Your task to perform on an android device: turn off data saver in the chrome app Image 0: 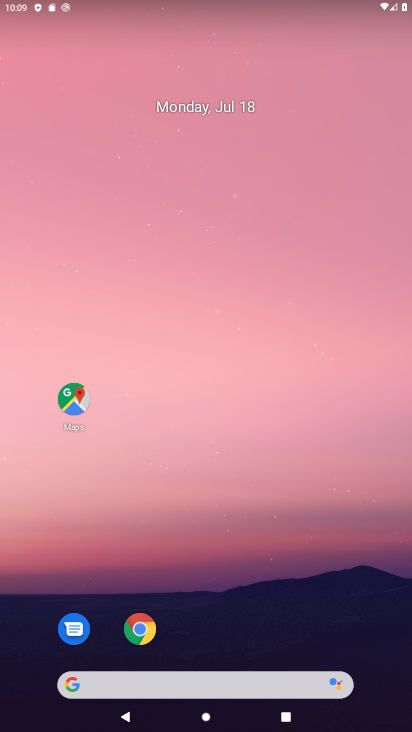
Step 0: click (136, 626)
Your task to perform on an android device: turn off data saver in the chrome app Image 1: 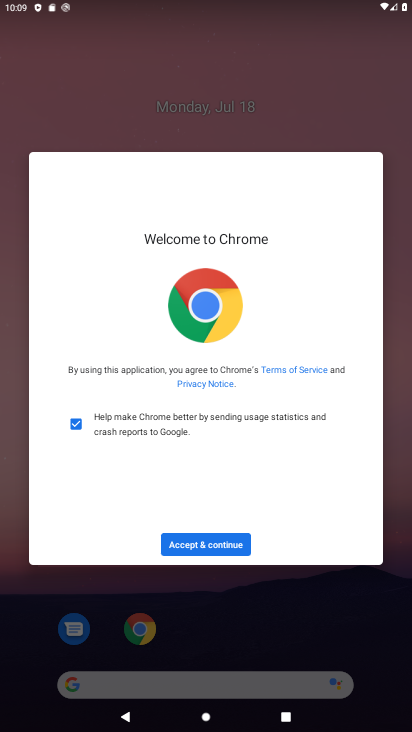
Step 1: click (214, 537)
Your task to perform on an android device: turn off data saver in the chrome app Image 2: 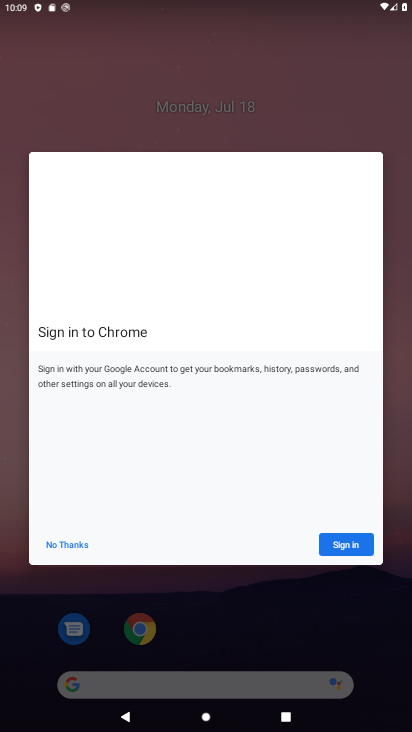
Step 2: click (54, 545)
Your task to perform on an android device: turn off data saver in the chrome app Image 3: 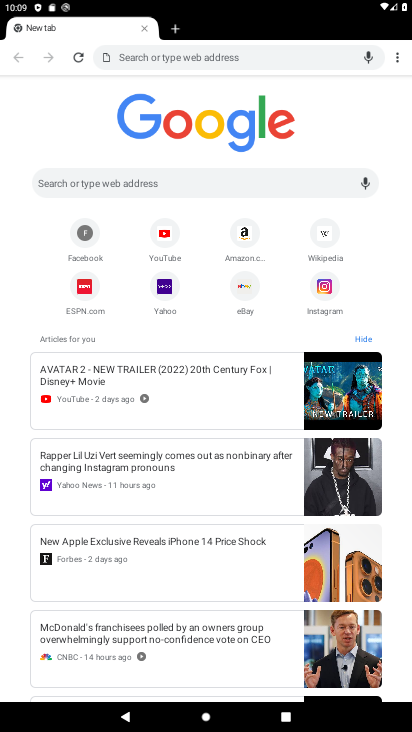
Step 3: click (393, 53)
Your task to perform on an android device: turn off data saver in the chrome app Image 4: 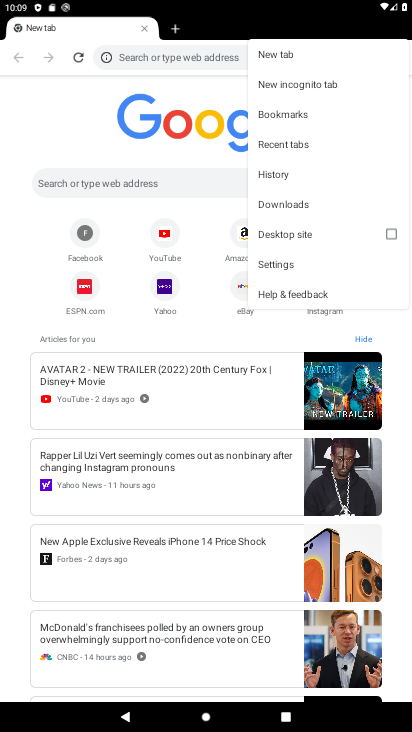
Step 4: click (298, 259)
Your task to perform on an android device: turn off data saver in the chrome app Image 5: 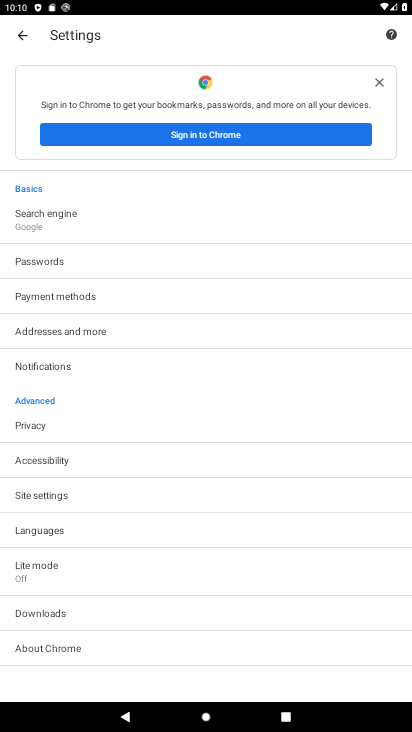
Step 5: click (61, 578)
Your task to perform on an android device: turn off data saver in the chrome app Image 6: 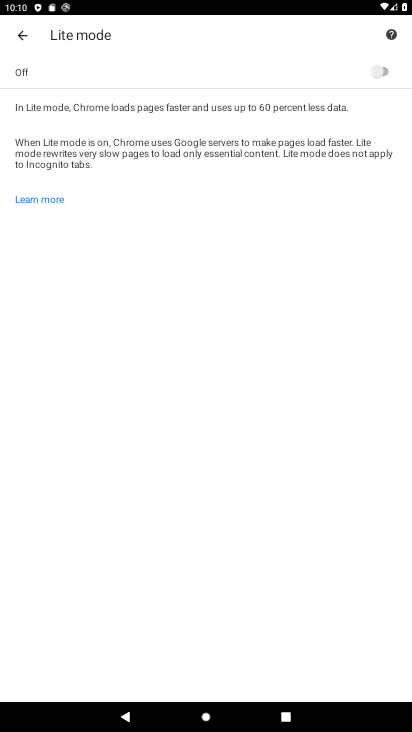
Step 6: task complete